Your task to perform on an android device: Open Chrome and go to the settings page Image 0: 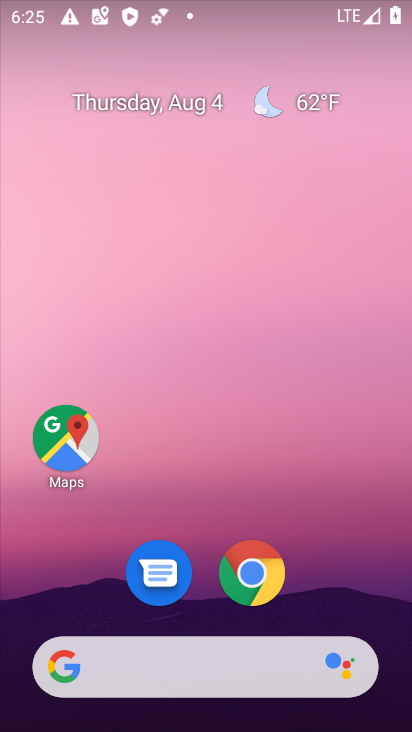
Step 0: press home button
Your task to perform on an android device: Open Chrome and go to the settings page Image 1: 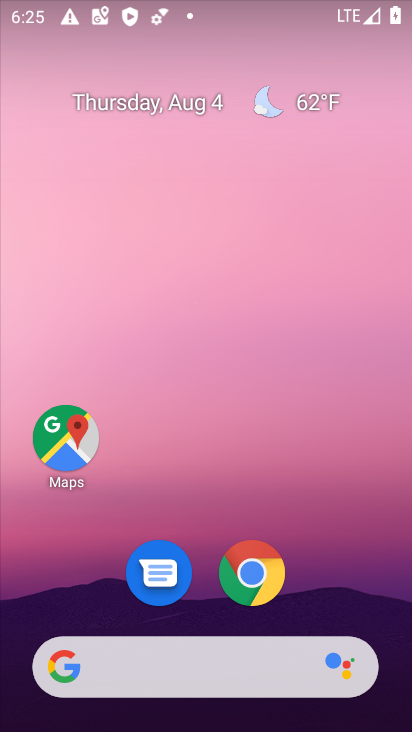
Step 1: drag from (298, 619) to (279, 126)
Your task to perform on an android device: Open Chrome and go to the settings page Image 2: 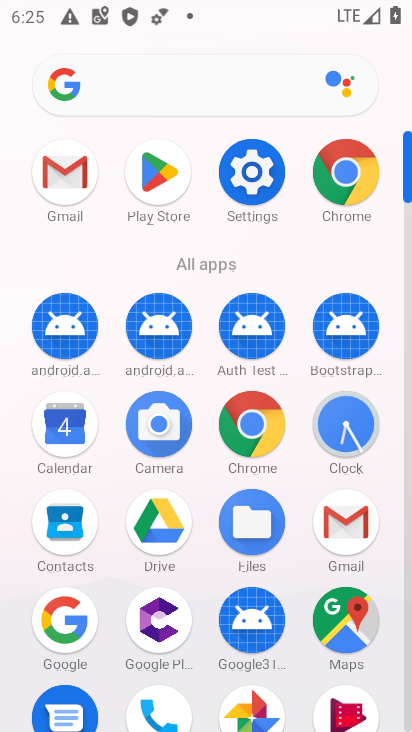
Step 2: click (353, 158)
Your task to perform on an android device: Open Chrome and go to the settings page Image 3: 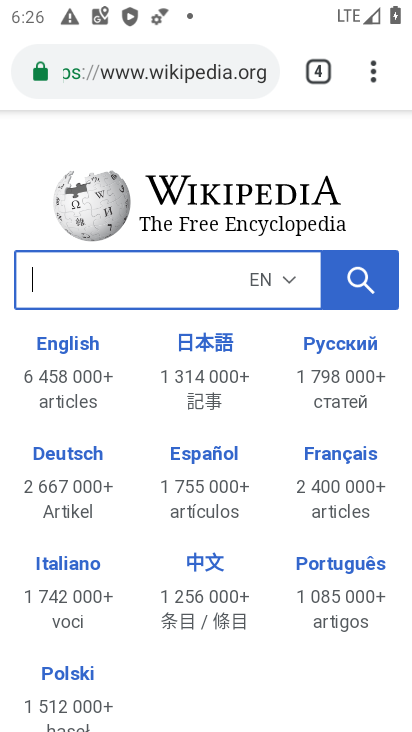
Step 3: task complete